Your task to perform on an android device: see sites visited before in the chrome app Image 0: 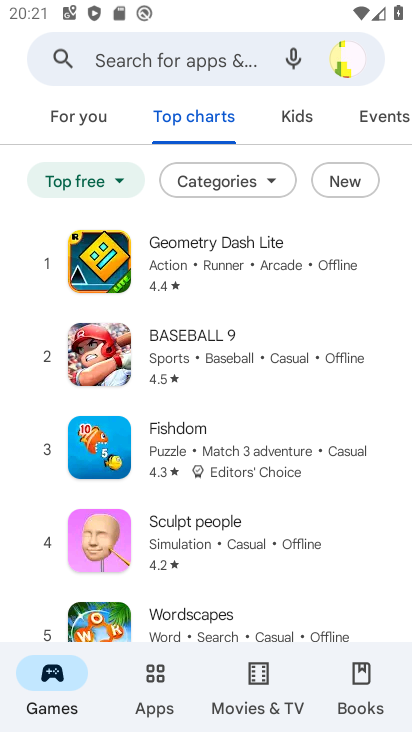
Step 0: press home button
Your task to perform on an android device: see sites visited before in the chrome app Image 1: 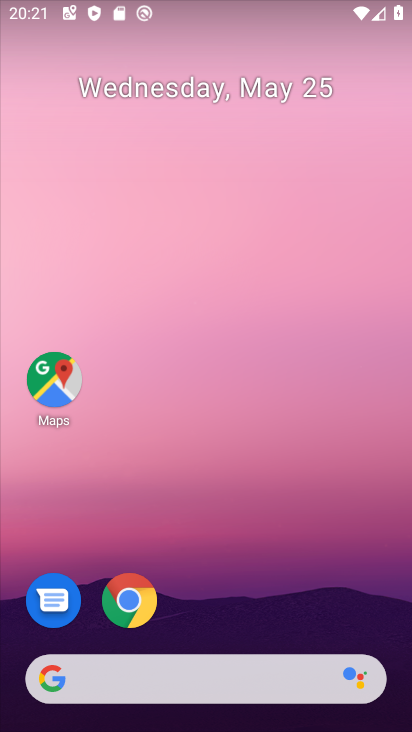
Step 1: drag from (361, 600) to (305, 177)
Your task to perform on an android device: see sites visited before in the chrome app Image 2: 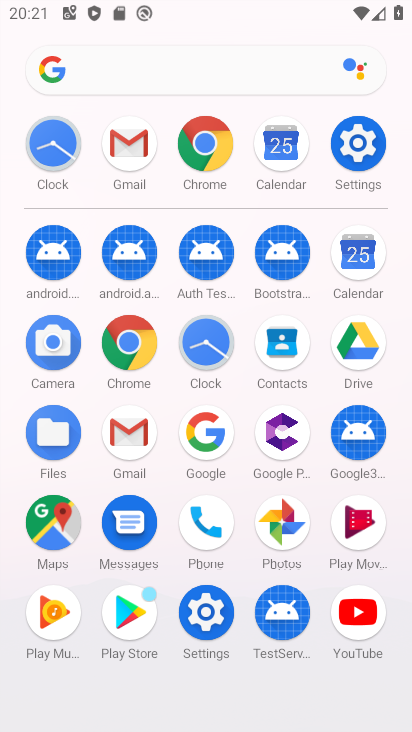
Step 2: click (140, 343)
Your task to perform on an android device: see sites visited before in the chrome app Image 3: 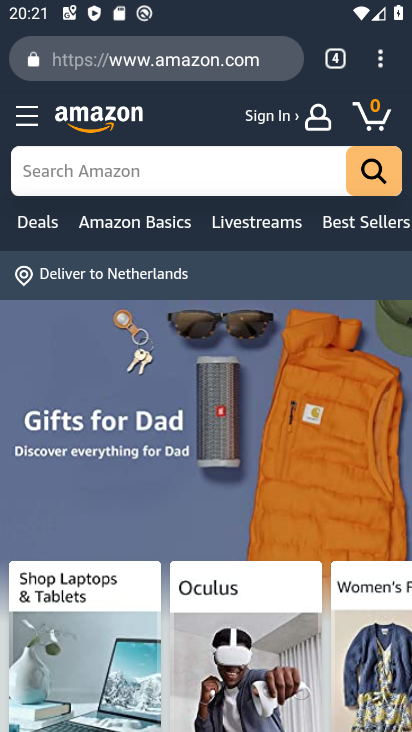
Step 3: task complete